Your task to perform on an android device: Show me productivity apps on the Play Store Image 0: 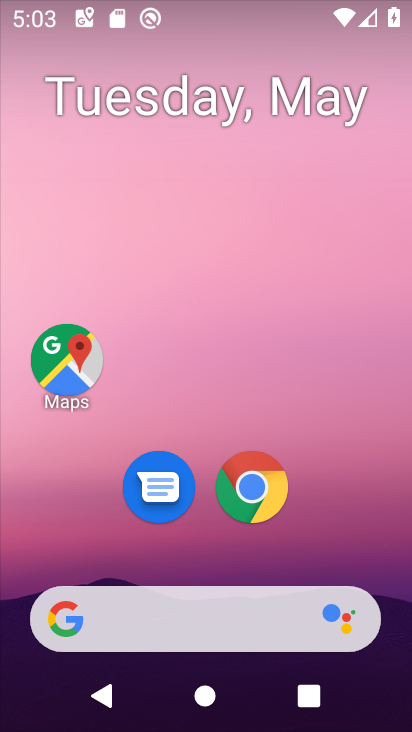
Step 0: drag from (346, 556) to (317, 0)
Your task to perform on an android device: Show me productivity apps on the Play Store Image 1: 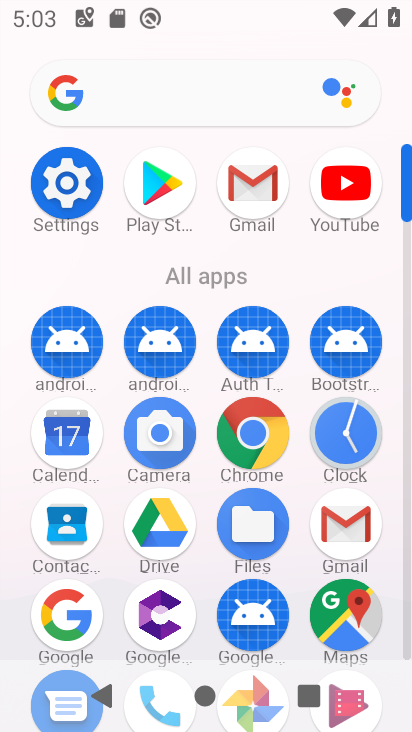
Step 1: click (162, 158)
Your task to perform on an android device: Show me productivity apps on the Play Store Image 2: 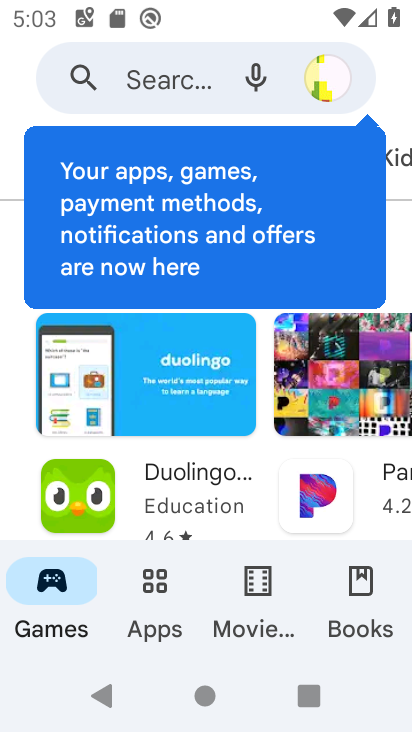
Step 2: click (141, 618)
Your task to perform on an android device: Show me productivity apps on the Play Store Image 3: 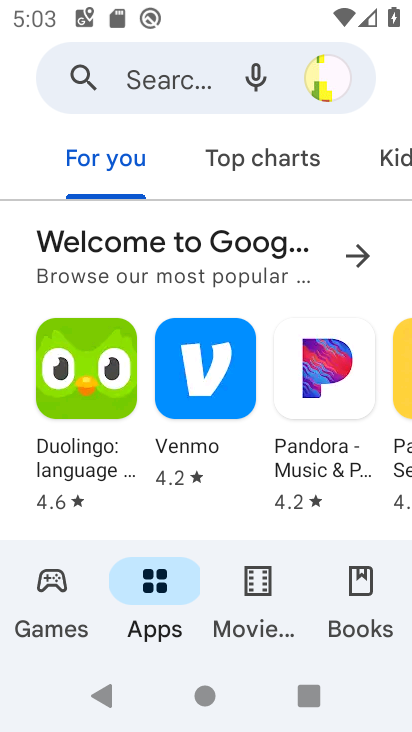
Step 3: click (279, 144)
Your task to perform on an android device: Show me productivity apps on the Play Store Image 4: 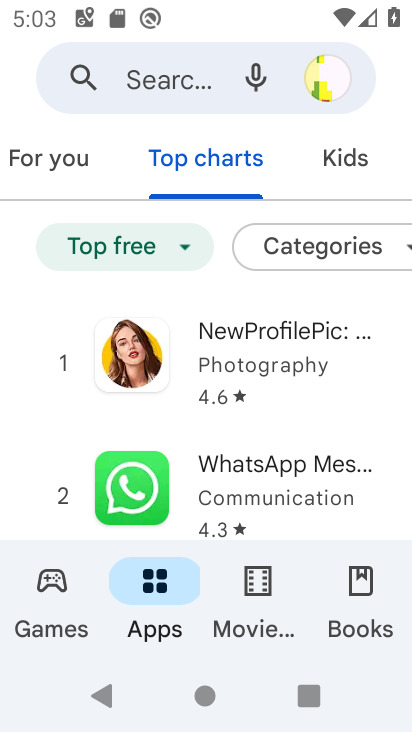
Step 4: click (303, 237)
Your task to perform on an android device: Show me productivity apps on the Play Store Image 5: 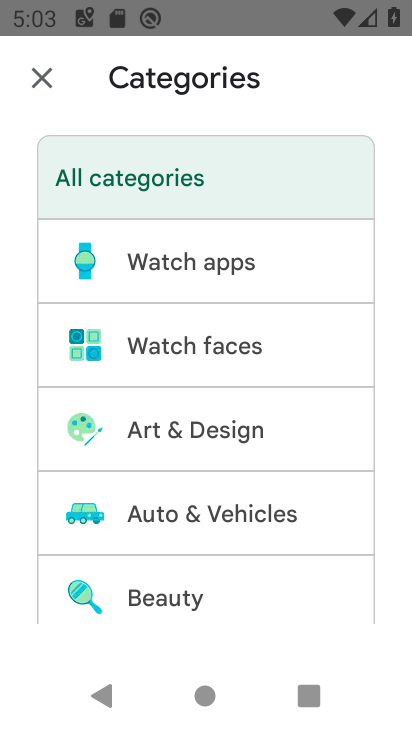
Step 5: drag from (257, 561) to (307, 114)
Your task to perform on an android device: Show me productivity apps on the Play Store Image 6: 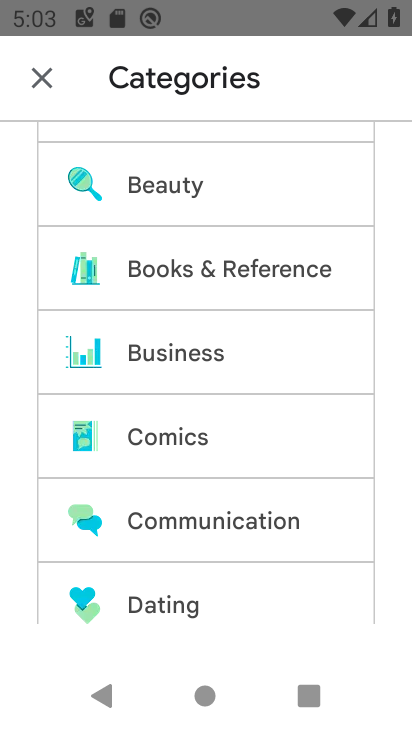
Step 6: drag from (241, 588) to (275, 104)
Your task to perform on an android device: Show me productivity apps on the Play Store Image 7: 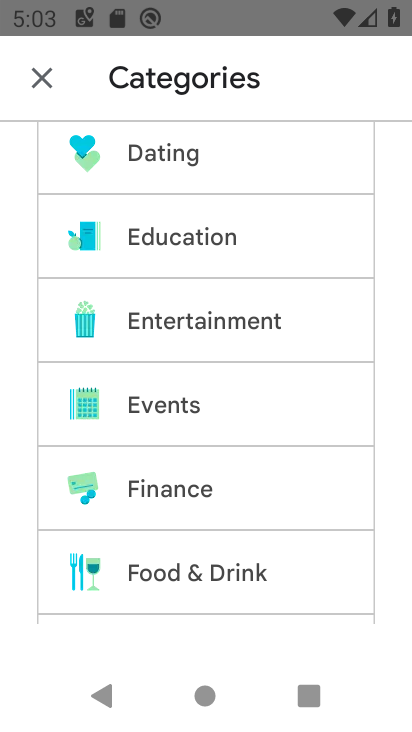
Step 7: drag from (270, 525) to (306, 174)
Your task to perform on an android device: Show me productivity apps on the Play Store Image 8: 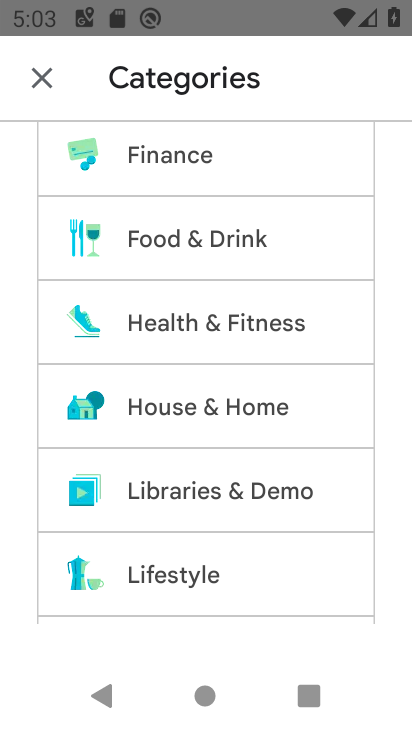
Step 8: drag from (255, 581) to (303, 169)
Your task to perform on an android device: Show me productivity apps on the Play Store Image 9: 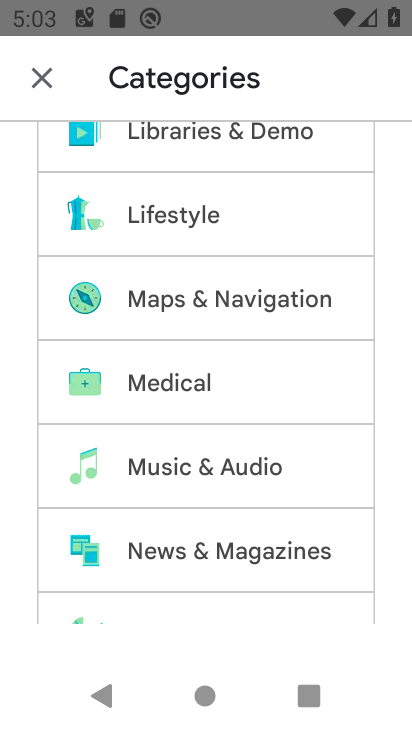
Step 9: drag from (254, 529) to (248, 175)
Your task to perform on an android device: Show me productivity apps on the Play Store Image 10: 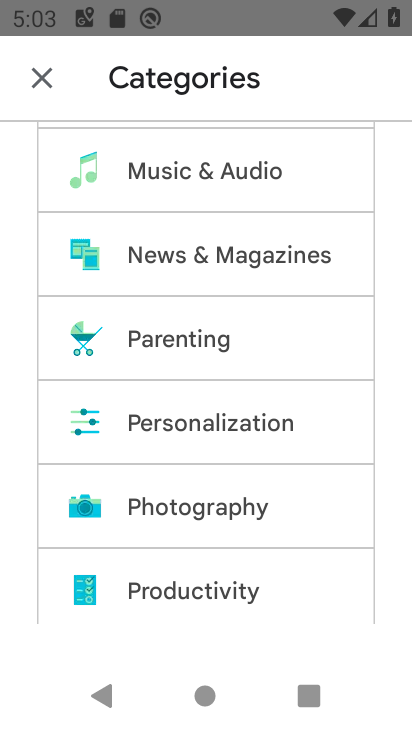
Step 10: click (216, 572)
Your task to perform on an android device: Show me productivity apps on the Play Store Image 11: 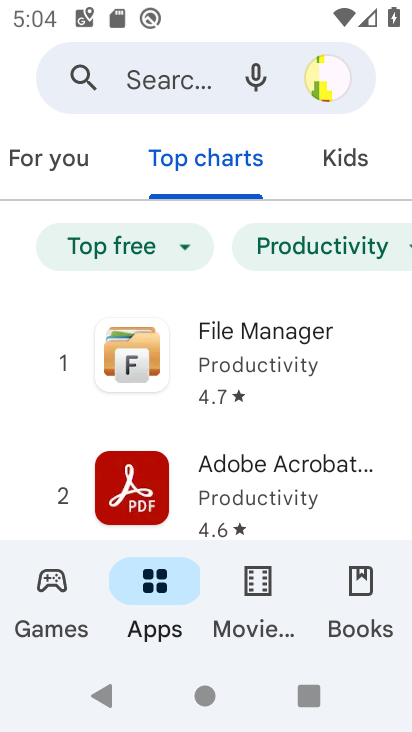
Step 11: task complete